Your task to perform on an android device: turn off notifications in google photos Image 0: 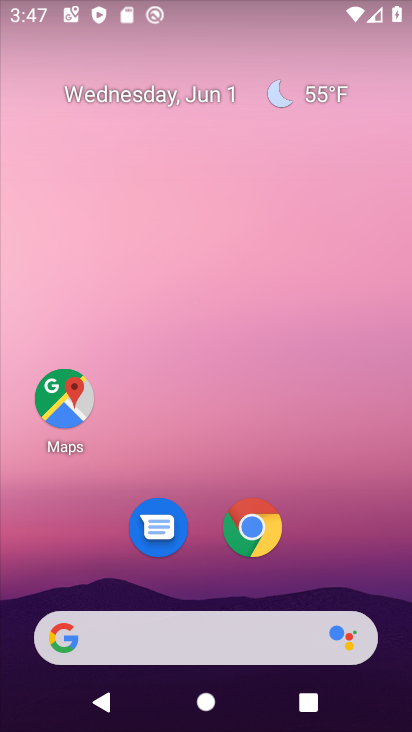
Step 0: drag from (354, 548) to (189, 54)
Your task to perform on an android device: turn off notifications in google photos Image 1: 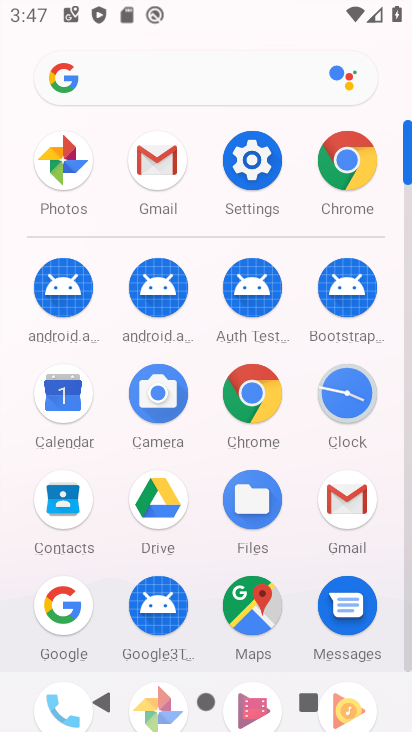
Step 1: click (406, 615)
Your task to perform on an android device: turn off notifications in google photos Image 2: 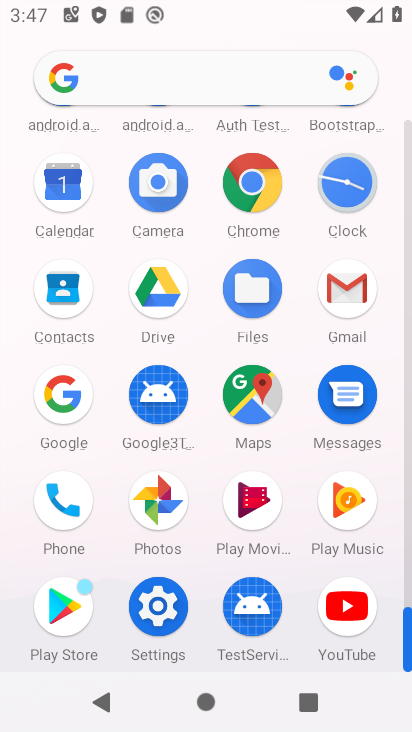
Step 2: click (151, 511)
Your task to perform on an android device: turn off notifications in google photos Image 3: 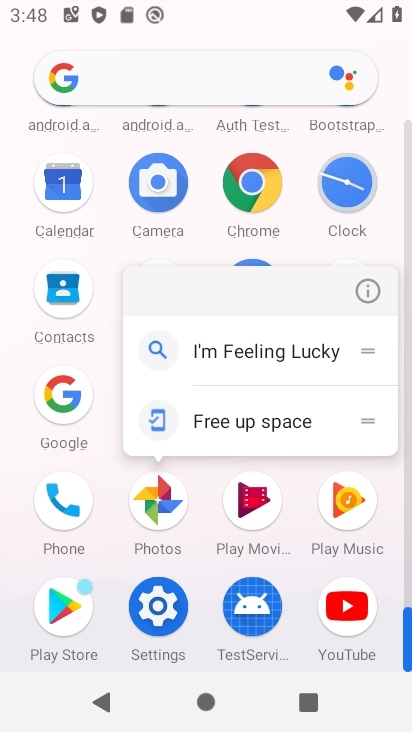
Step 3: click (362, 301)
Your task to perform on an android device: turn off notifications in google photos Image 4: 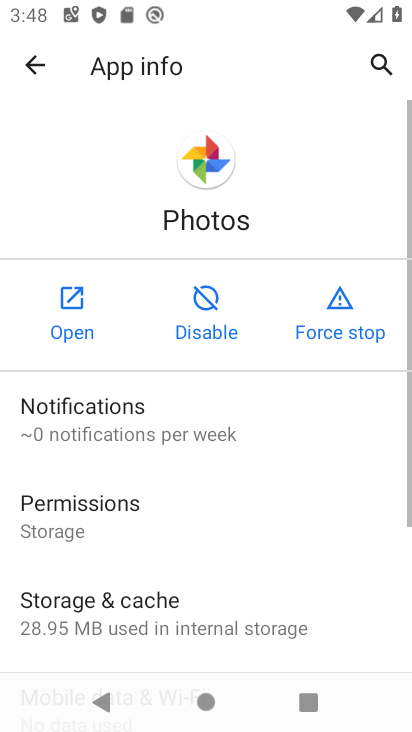
Step 4: click (119, 410)
Your task to perform on an android device: turn off notifications in google photos Image 5: 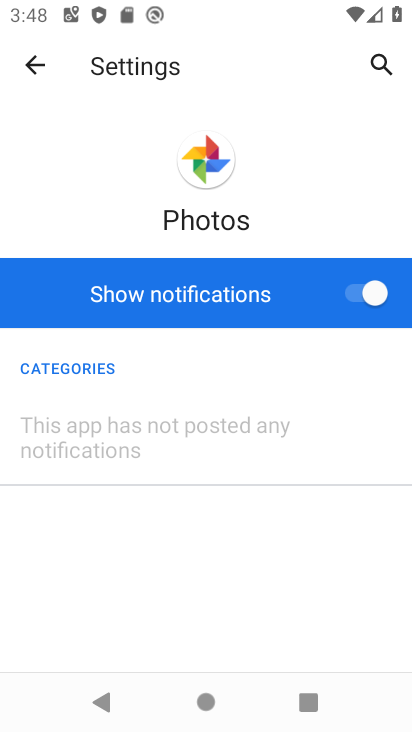
Step 5: click (303, 318)
Your task to perform on an android device: turn off notifications in google photos Image 6: 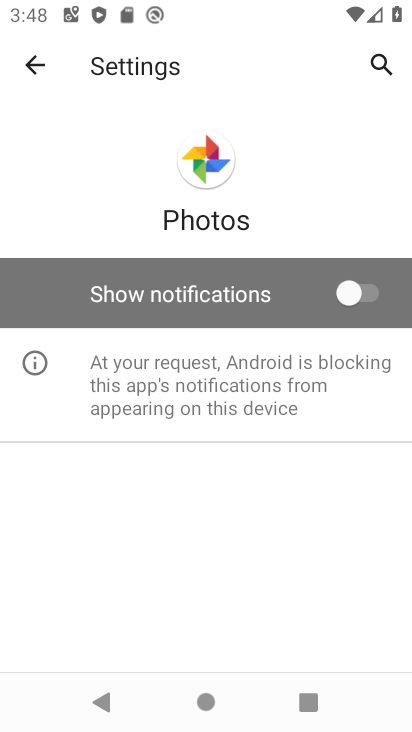
Step 6: task complete